Your task to perform on an android device: toggle javascript in the chrome app Image 0: 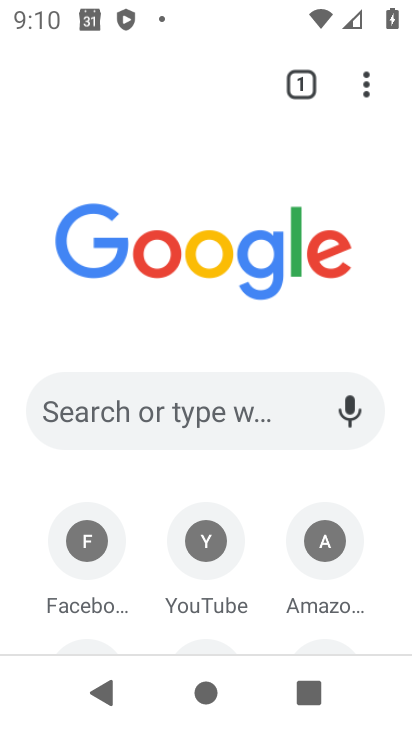
Step 0: drag from (363, 80) to (173, 522)
Your task to perform on an android device: toggle javascript in the chrome app Image 1: 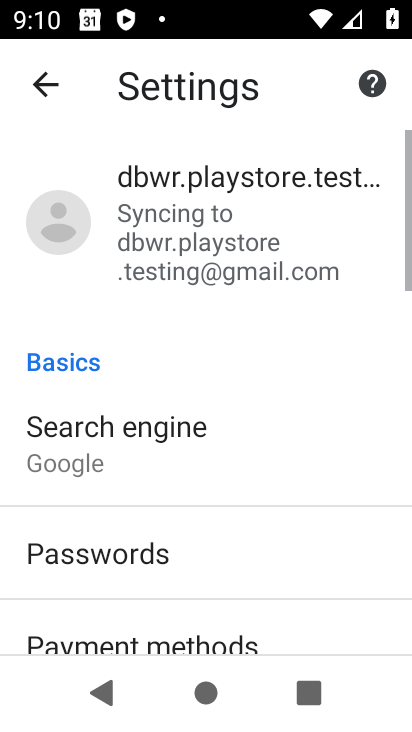
Step 1: drag from (233, 564) to (340, 169)
Your task to perform on an android device: toggle javascript in the chrome app Image 2: 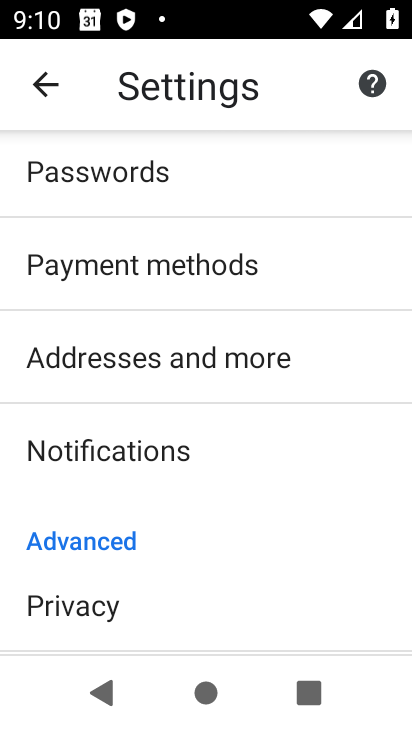
Step 2: drag from (238, 554) to (315, 149)
Your task to perform on an android device: toggle javascript in the chrome app Image 3: 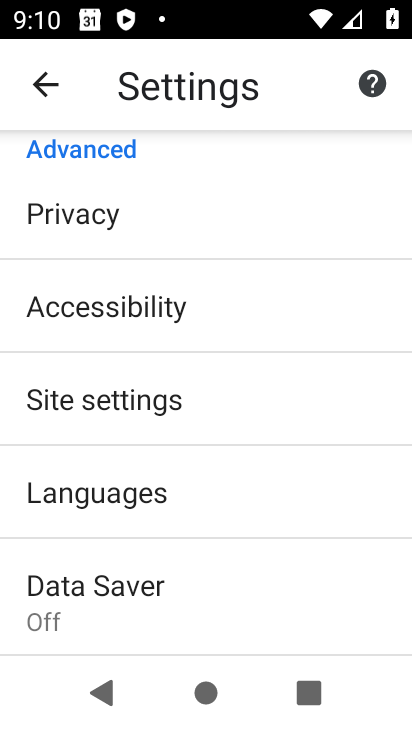
Step 3: click (134, 400)
Your task to perform on an android device: toggle javascript in the chrome app Image 4: 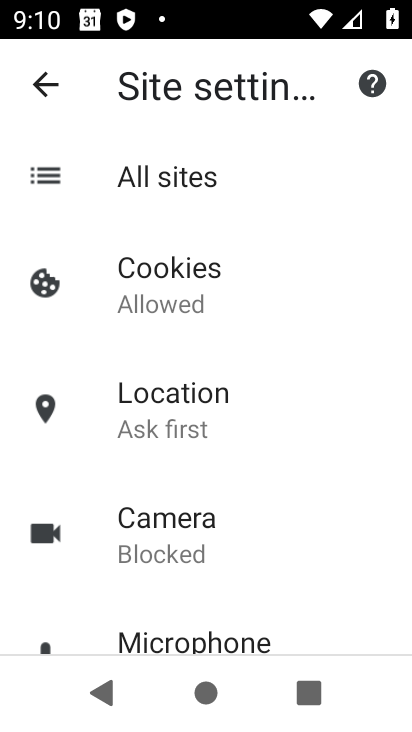
Step 4: drag from (245, 565) to (310, 184)
Your task to perform on an android device: toggle javascript in the chrome app Image 5: 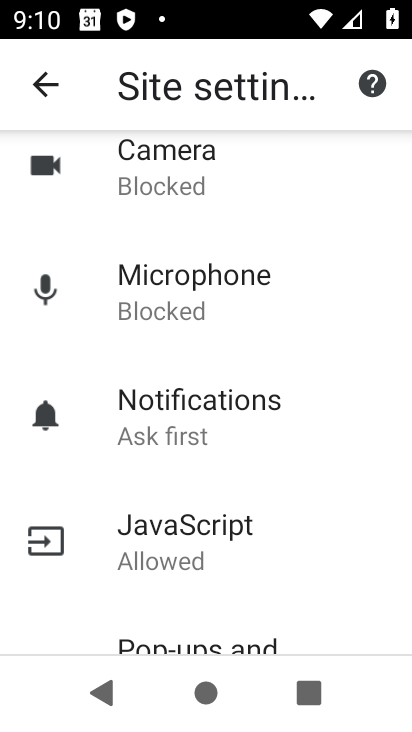
Step 5: click (187, 543)
Your task to perform on an android device: toggle javascript in the chrome app Image 6: 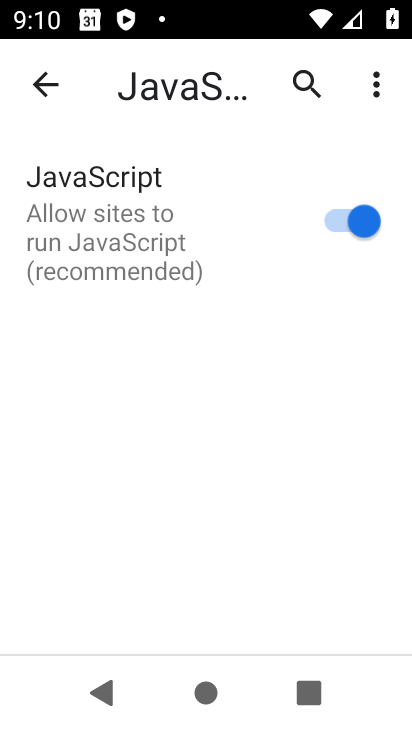
Step 6: click (368, 223)
Your task to perform on an android device: toggle javascript in the chrome app Image 7: 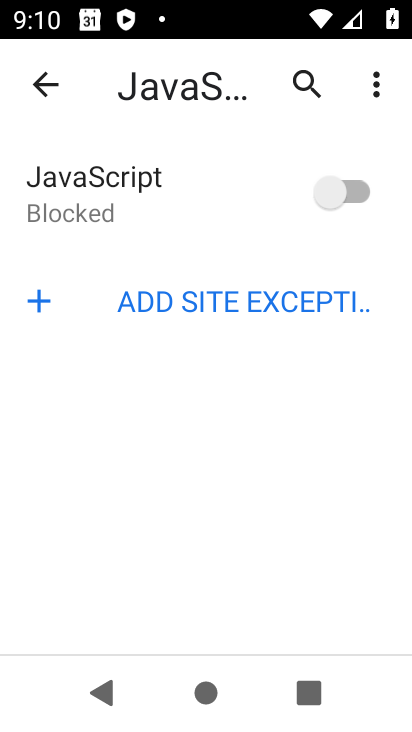
Step 7: task complete